Your task to perform on an android device: Open Google Maps Image 0: 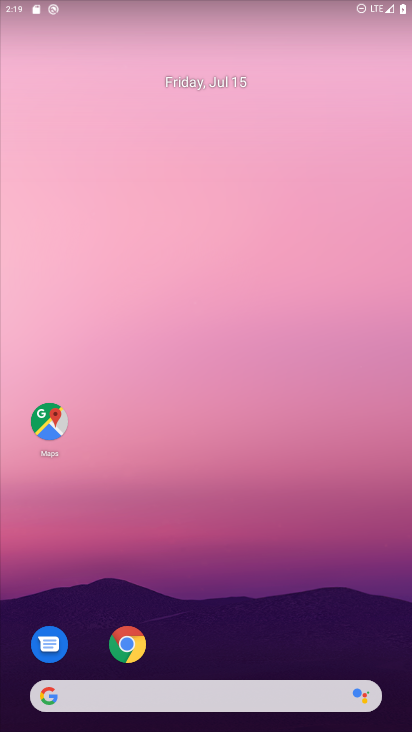
Step 0: click (56, 430)
Your task to perform on an android device: Open Google Maps Image 1: 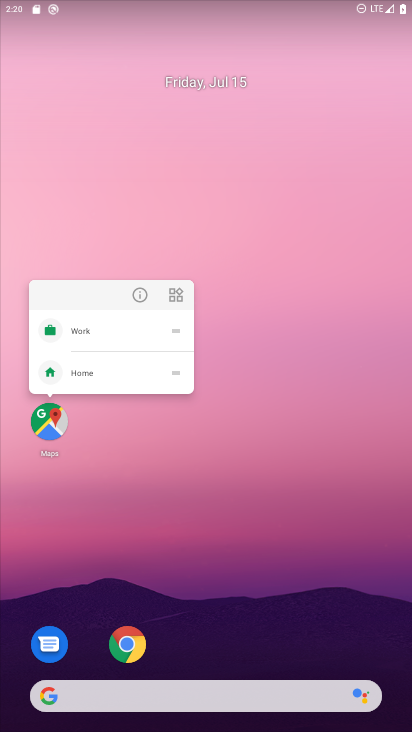
Step 1: click (55, 426)
Your task to perform on an android device: Open Google Maps Image 2: 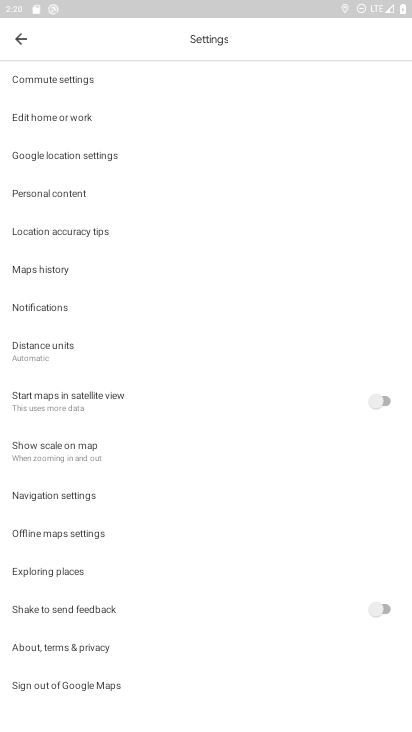
Step 2: task complete